Your task to perform on an android device: delete a single message in the gmail app Image 0: 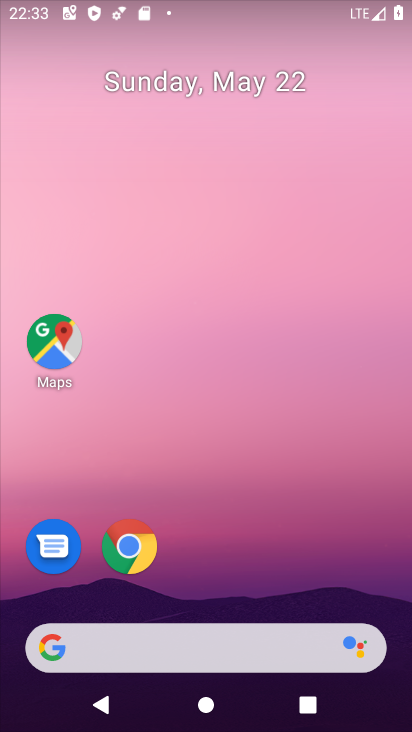
Step 0: click (321, 21)
Your task to perform on an android device: delete a single message in the gmail app Image 1: 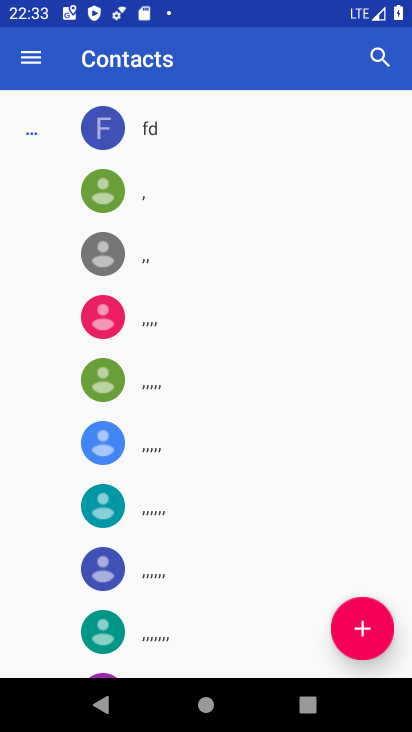
Step 1: press home button
Your task to perform on an android device: delete a single message in the gmail app Image 2: 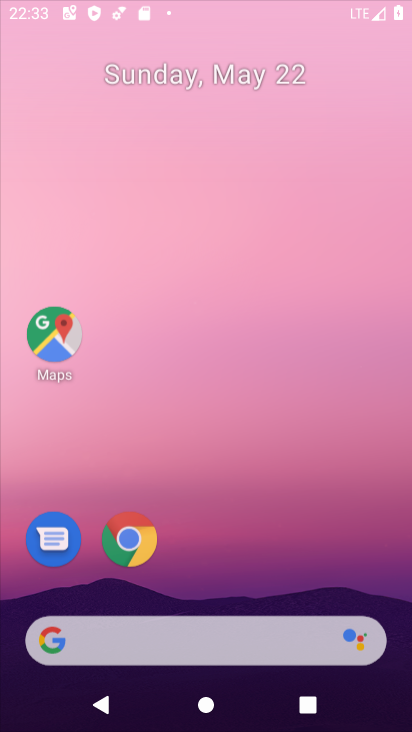
Step 2: drag from (112, 607) to (286, 75)
Your task to perform on an android device: delete a single message in the gmail app Image 3: 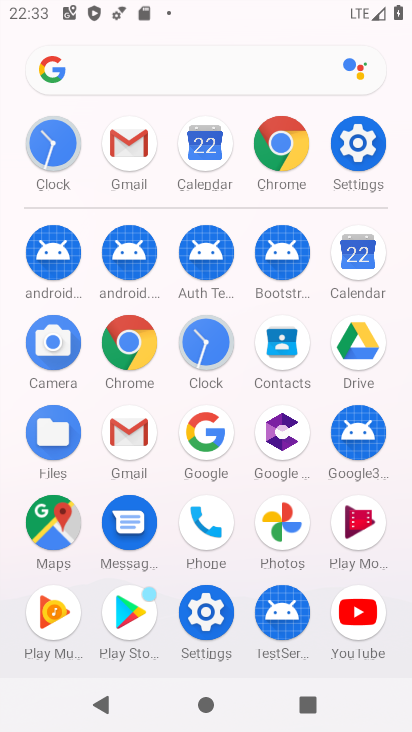
Step 3: click (121, 428)
Your task to perform on an android device: delete a single message in the gmail app Image 4: 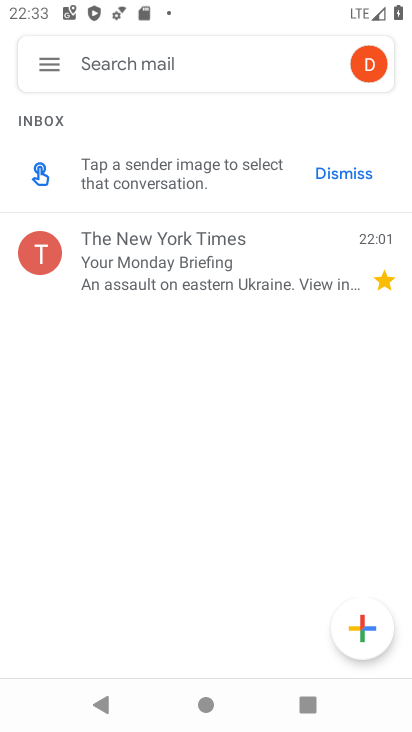
Step 4: click (35, 249)
Your task to perform on an android device: delete a single message in the gmail app Image 5: 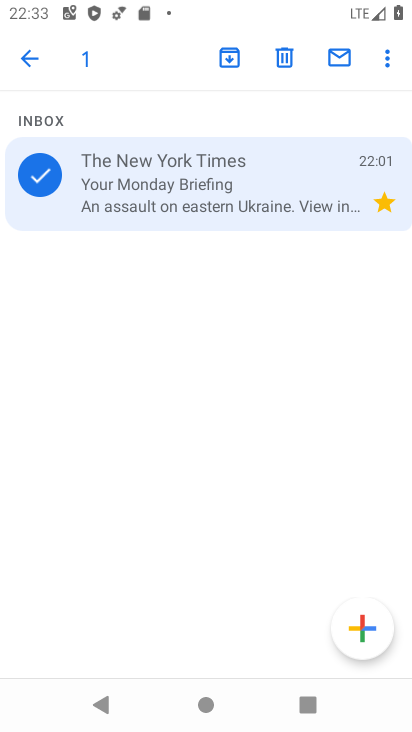
Step 5: click (279, 49)
Your task to perform on an android device: delete a single message in the gmail app Image 6: 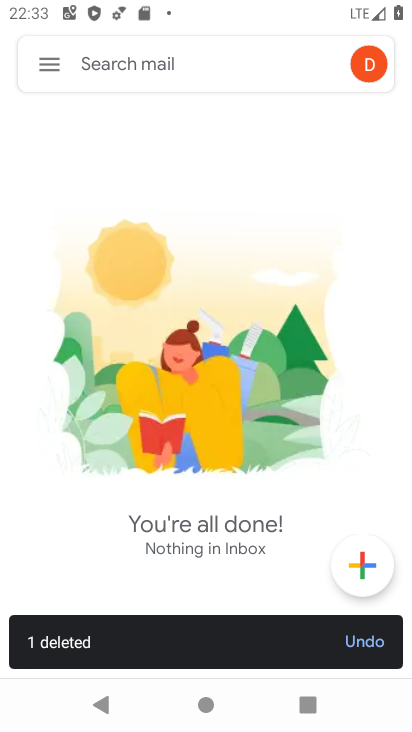
Step 6: task complete